Your task to perform on an android device: change the clock display to show seconds Image 0: 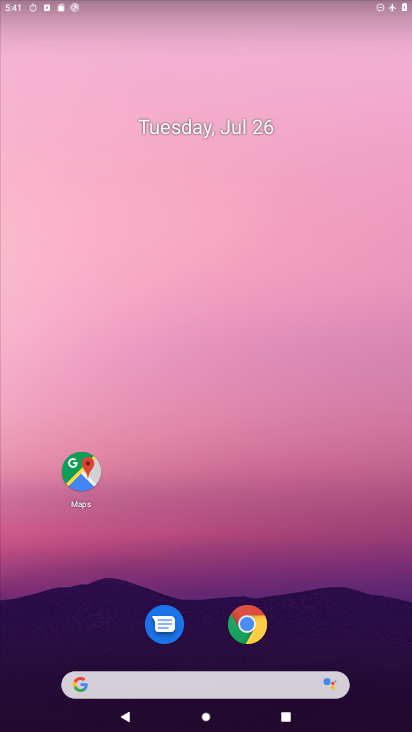
Step 0: drag from (90, 643) to (169, 48)
Your task to perform on an android device: change the clock display to show seconds Image 1: 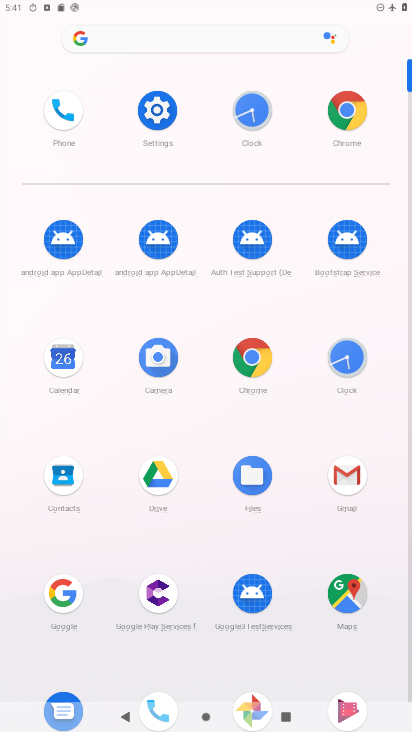
Step 1: click (151, 101)
Your task to perform on an android device: change the clock display to show seconds Image 2: 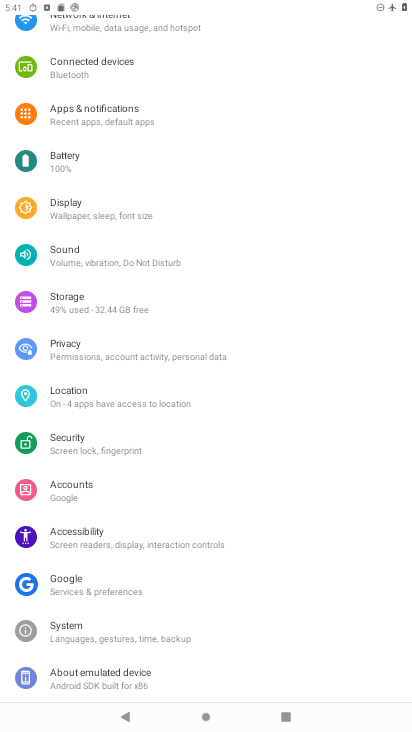
Step 2: press home button
Your task to perform on an android device: change the clock display to show seconds Image 3: 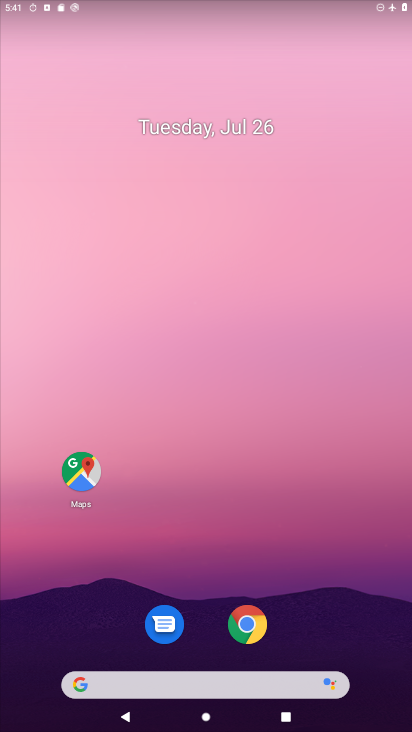
Step 3: drag from (172, 675) to (218, 130)
Your task to perform on an android device: change the clock display to show seconds Image 4: 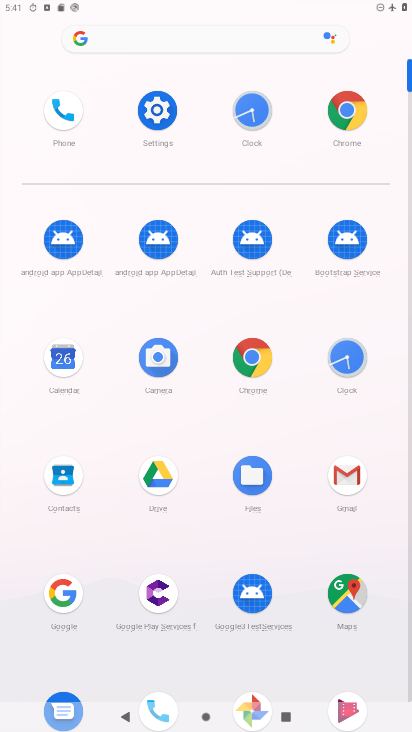
Step 4: click (347, 358)
Your task to perform on an android device: change the clock display to show seconds Image 5: 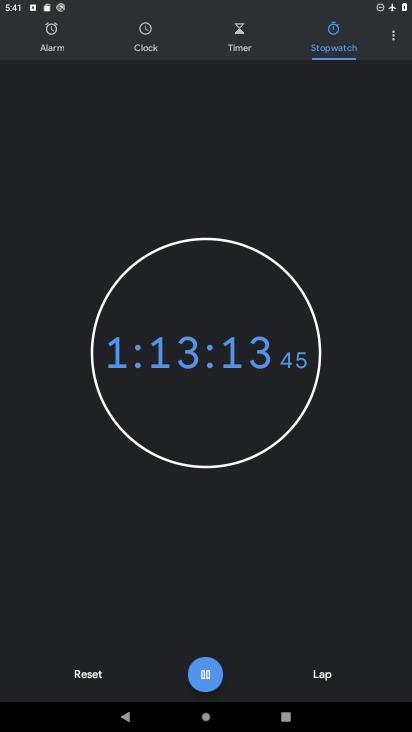
Step 5: click (395, 36)
Your task to perform on an android device: change the clock display to show seconds Image 6: 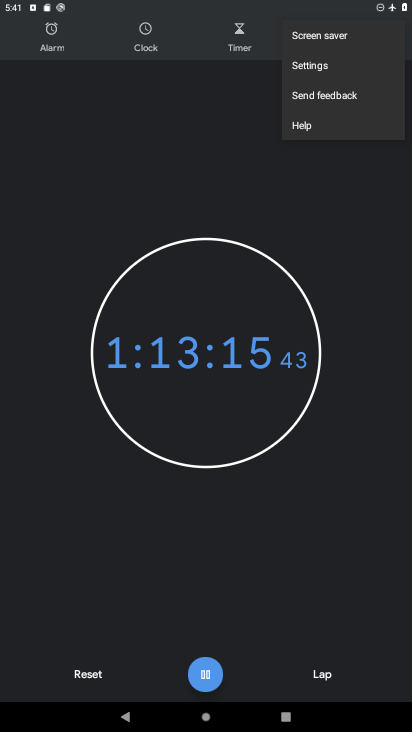
Step 6: click (322, 69)
Your task to perform on an android device: change the clock display to show seconds Image 7: 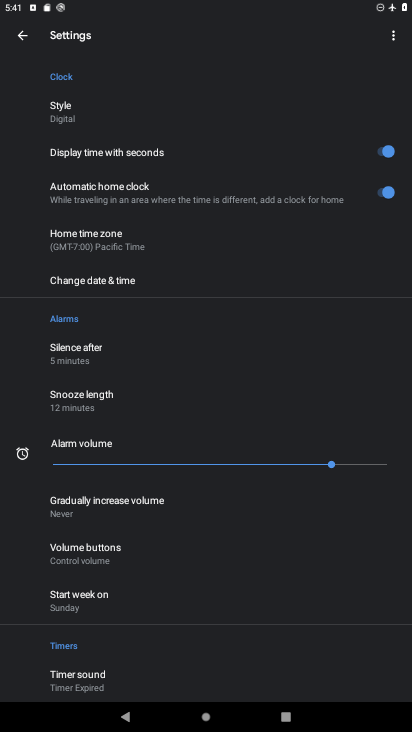
Step 7: click (388, 150)
Your task to perform on an android device: change the clock display to show seconds Image 8: 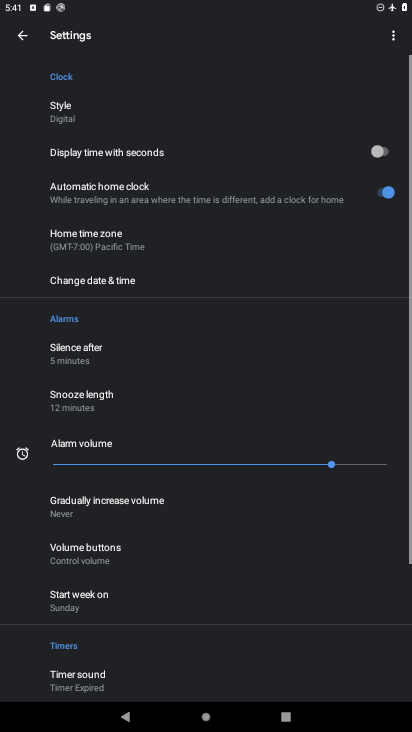
Step 8: task complete